Your task to perform on an android device: Go to eBay Image 0: 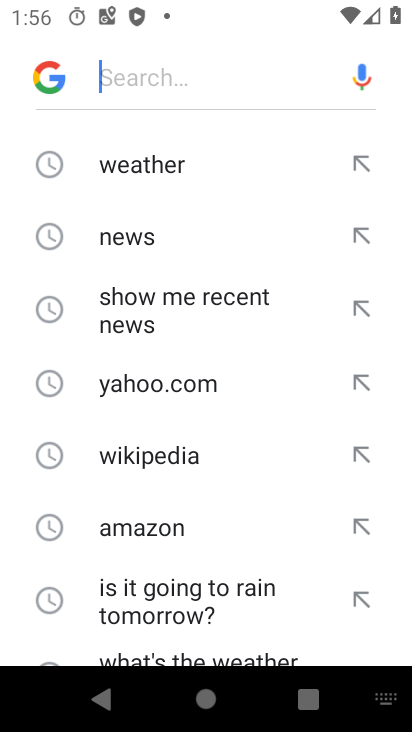
Step 0: press home button
Your task to perform on an android device: Go to eBay Image 1: 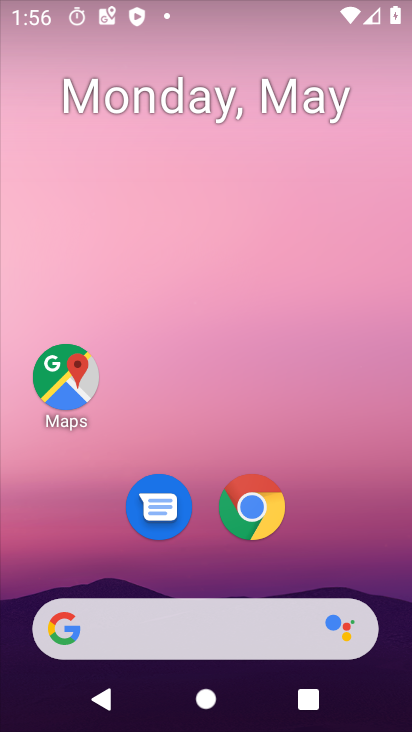
Step 1: drag from (384, 568) to (371, 85)
Your task to perform on an android device: Go to eBay Image 2: 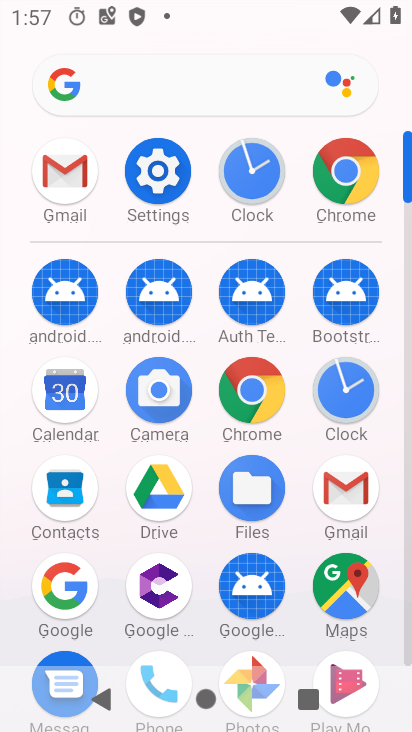
Step 2: click (374, 175)
Your task to perform on an android device: Go to eBay Image 3: 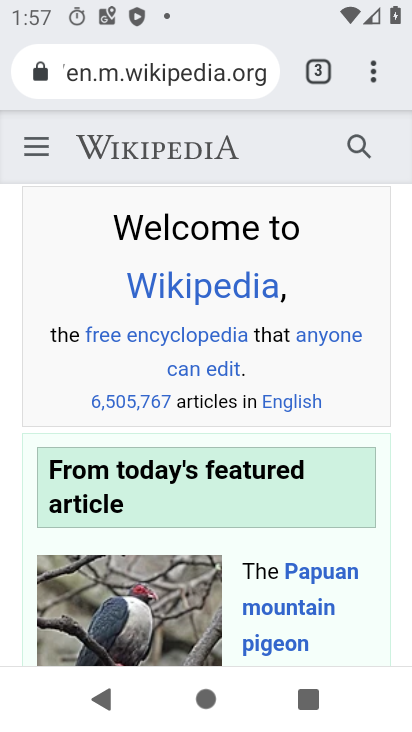
Step 3: click (194, 84)
Your task to perform on an android device: Go to eBay Image 4: 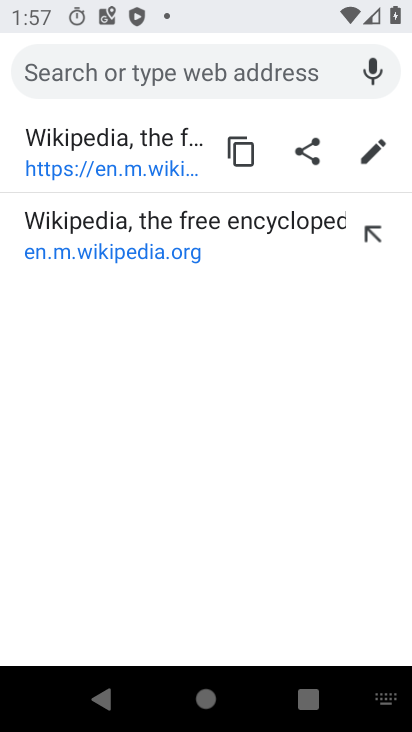
Step 4: type "ebay"
Your task to perform on an android device: Go to eBay Image 5: 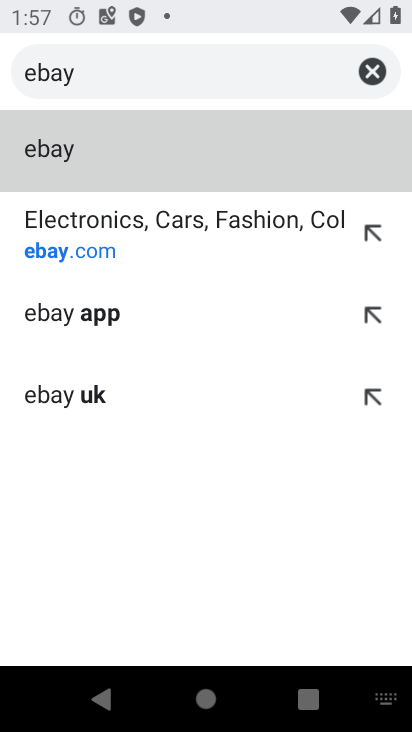
Step 5: click (119, 158)
Your task to perform on an android device: Go to eBay Image 6: 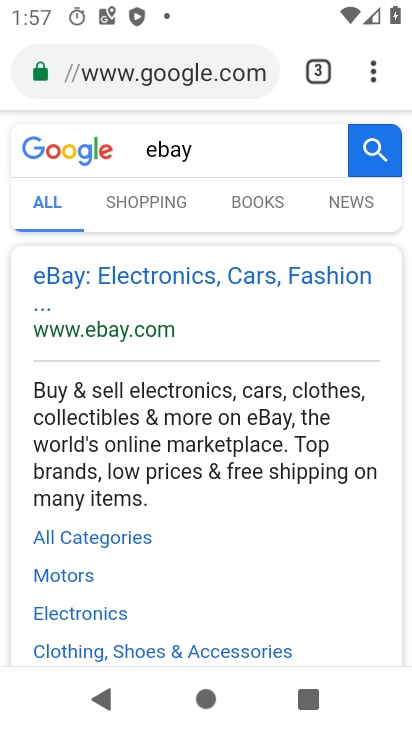
Step 6: click (120, 268)
Your task to perform on an android device: Go to eBay Image 7: 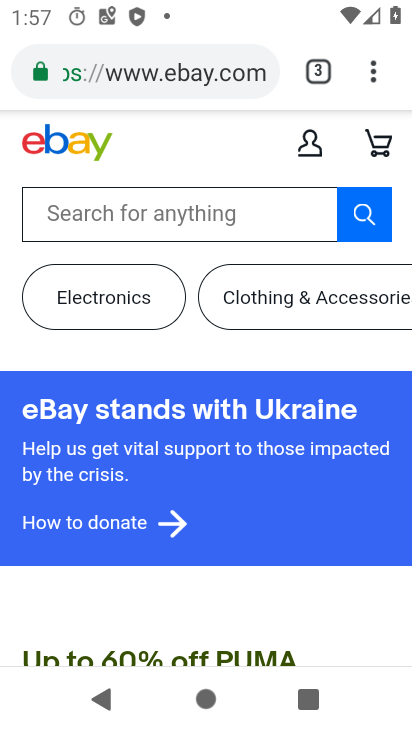
Step 7: task complete